Your task to perform on an android device: turn off notifications in google photos Image 0: 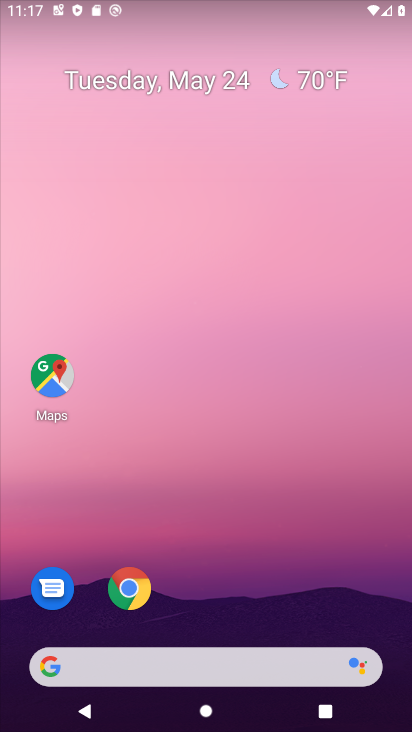
Step 0: press home button
Your task to perform on an android device: turn off notifications in google photos Image 1: 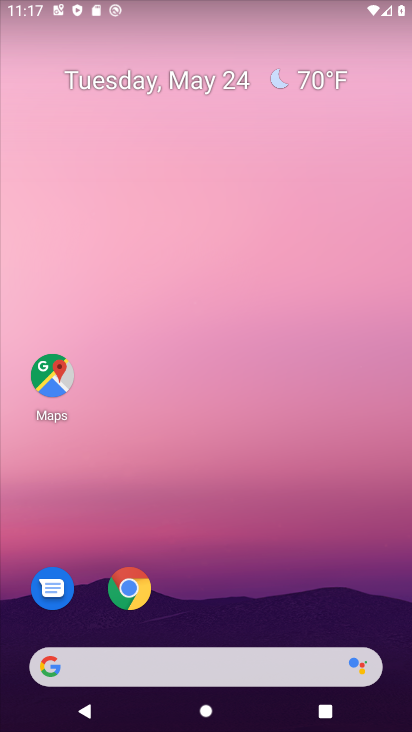
Step 1: drag from (215, 625) to (228, 49)
Your task to perform on an android device: turn off notifications in google photos Image 2: 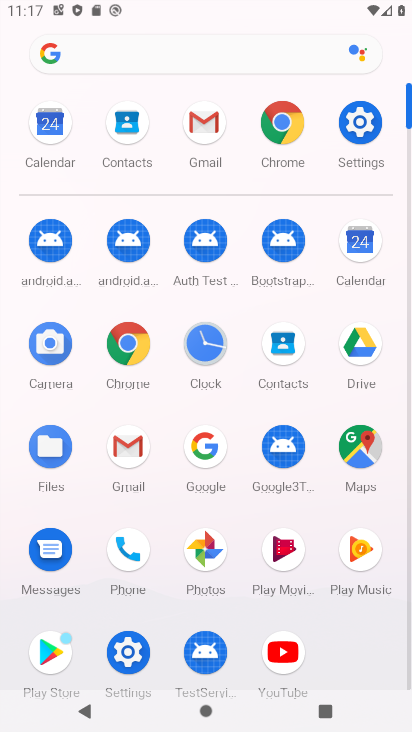
Step 2: click (203, 540)
Your task to perform on an android device: turn off notifications in google photos Image 3: 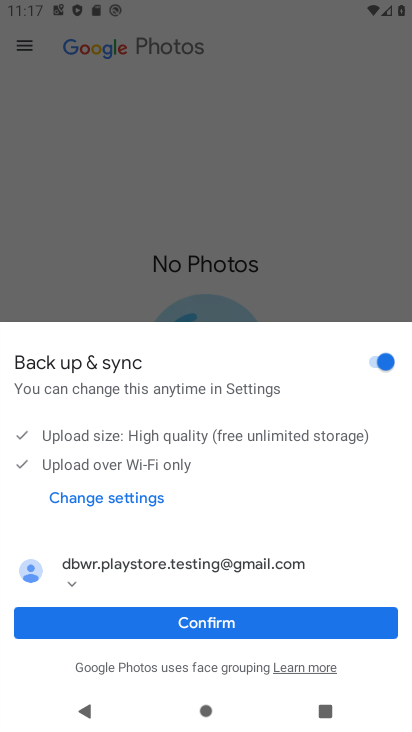
Step 3: click (203, 620)
Your task to perform on an android device: turn off notifications in google photos Image 4: 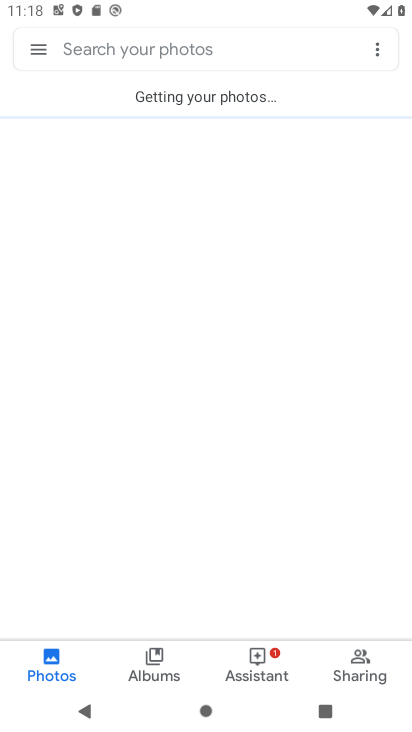
Step 4: click (35, 53)
Your task to perform on an android device: turn off notifications in google photos Image 5: 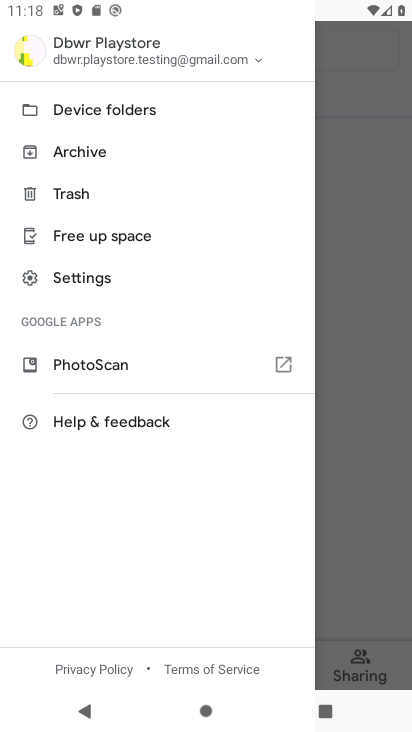
Step 5: click (115, 275)
Your task to perform on an android device: turn off notifications in google photos Image 6: 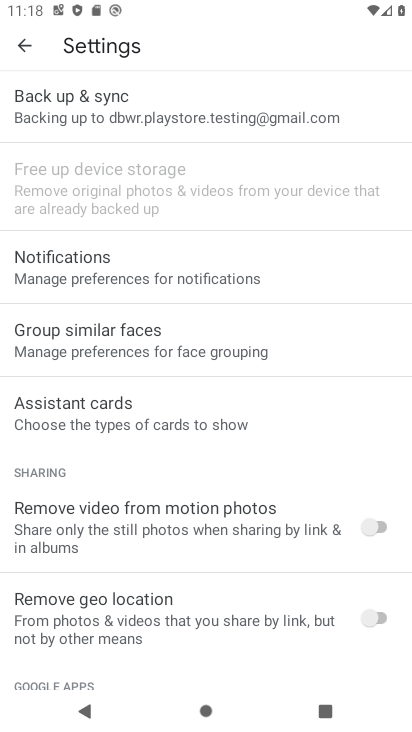
Step 6: click (128, 262)
Your task to perform on an android device: turn off notifications in google photos Image 7: 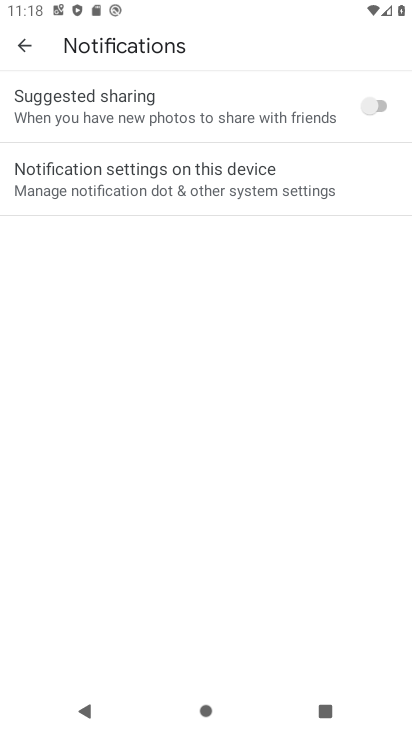
Step 7: click (287, 170)
Your task to perform on an android device: turn off notifications in google photos Image 8: 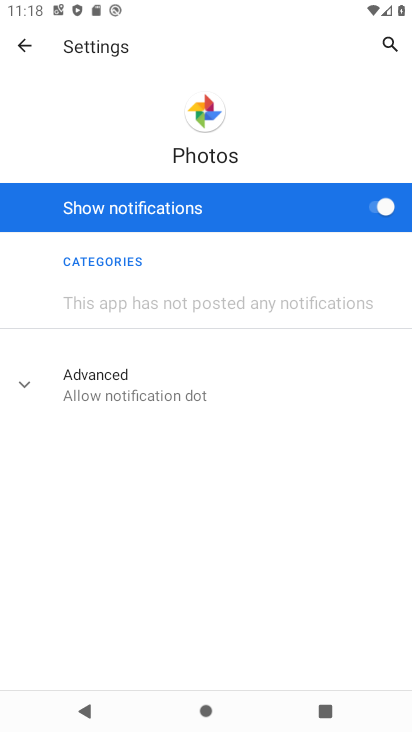
Step 8: click (379, 207)
Your task to perform on an android device: turn off notifications in google photos Image 9: 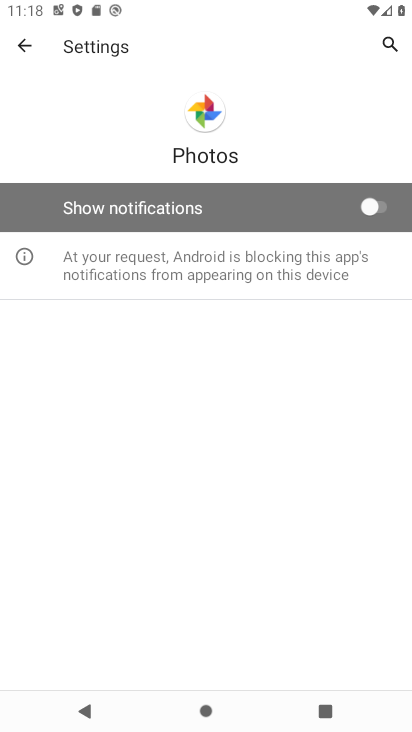
Step 9: task complete